Your task to perform on an android device: Open display settings Image 0: 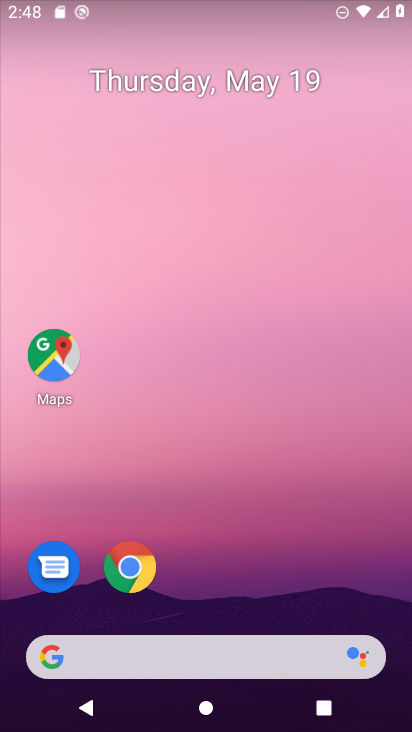
Step 0: drag from (252, 569) to (280, 98)
Your task to perform on an android device: Open display settings Image 1: 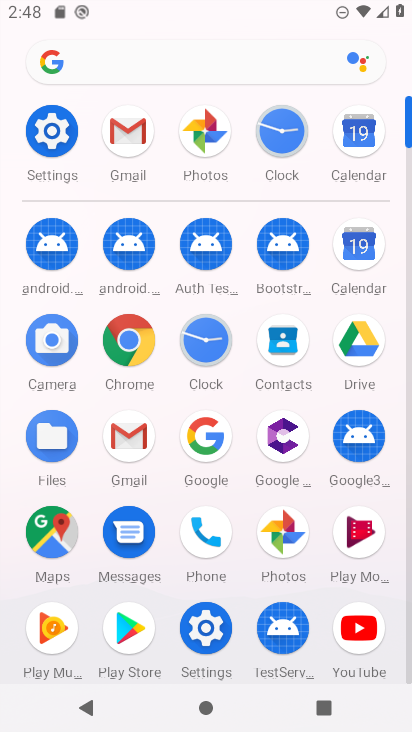
Step 1: click (51, 127)
Your task to perform on an android device: Open display settings Image 2: 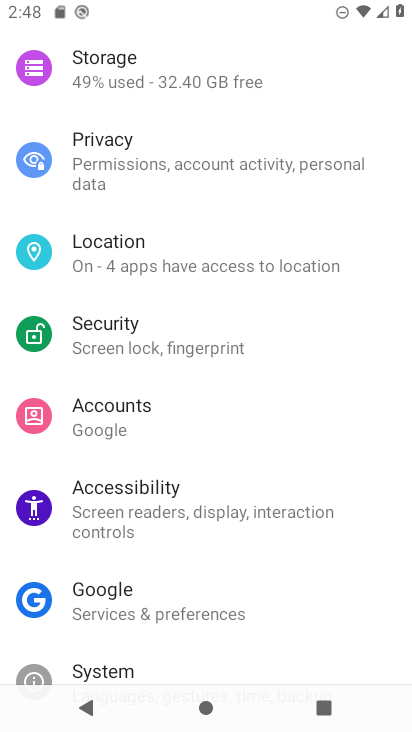
Step 2: drag from (233, 301) to (220, 687)
Your task to perform on an android device: Open display settings Image 3: 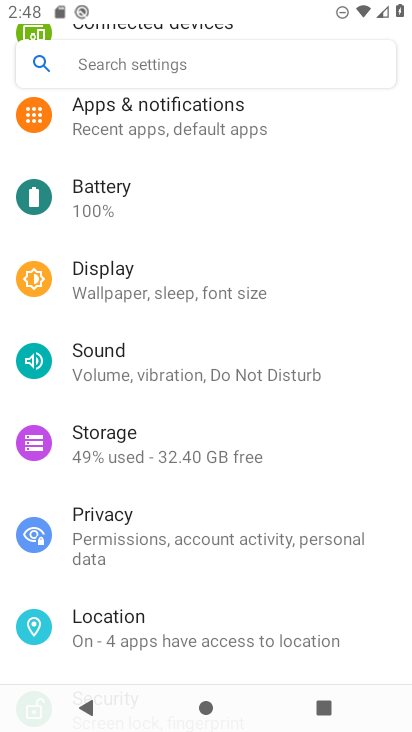
Step 3: click (165, 268)
Your task to perform on an android device: Open display settings Image 4: 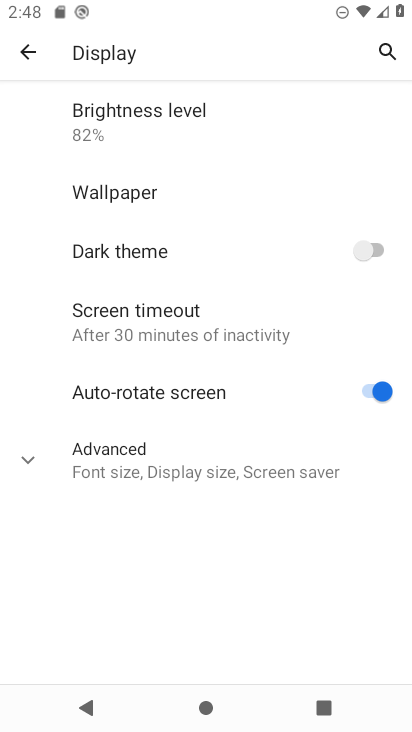
Step 4: task complete